Your task to perform on an android device: Go to battery settings Image 0: 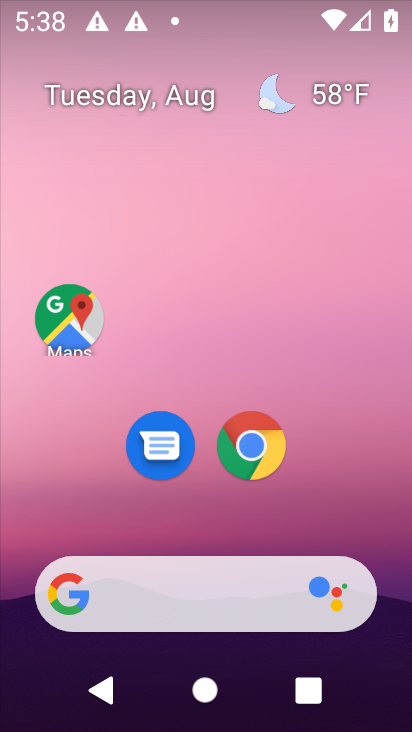
Step 0: drag from (190, 508) to (200, 127)
Your task to perform on an android device: Go to battery settings Image 1: 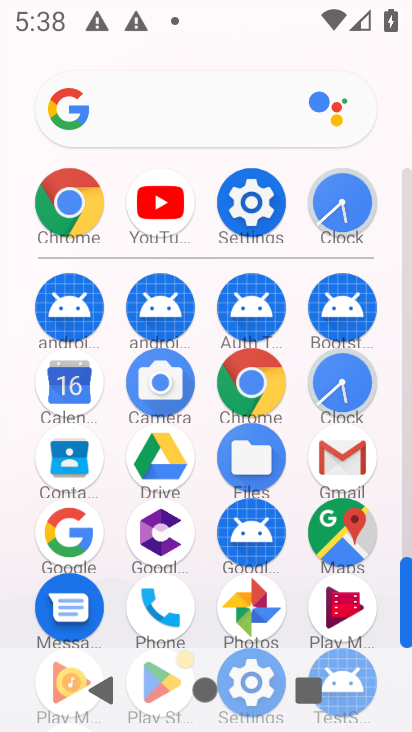
Step 1: click (253, 207)
Your task to perform on an android device: Go to battery settings Image 2: 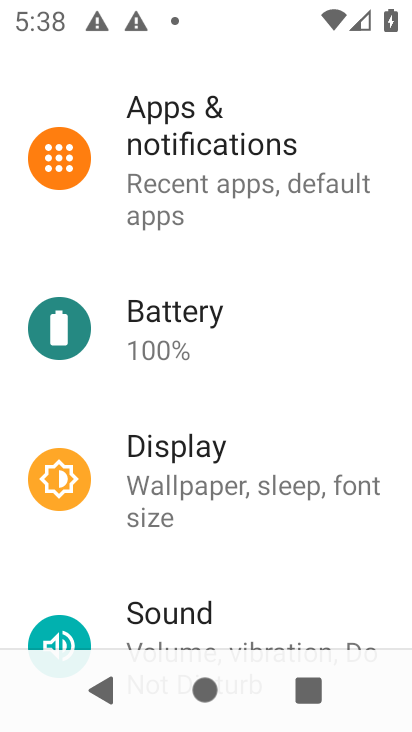
Step 2: click (167, 334)
Your task to perform on an android device: Go to battery settings Image 3: 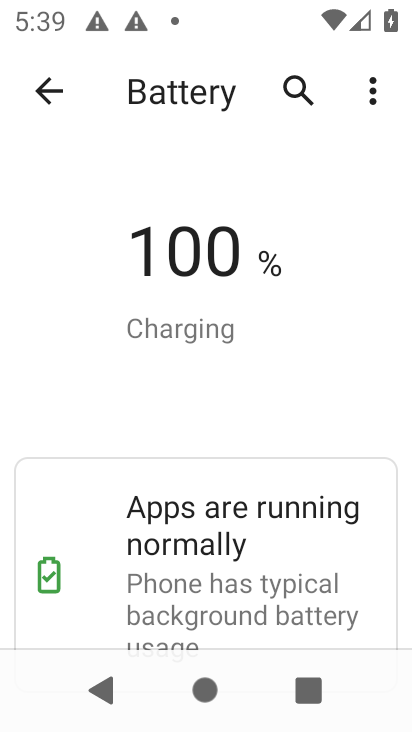
Step 3: task complete